Your task to perform on an android device: Go to battery settings Image 0: 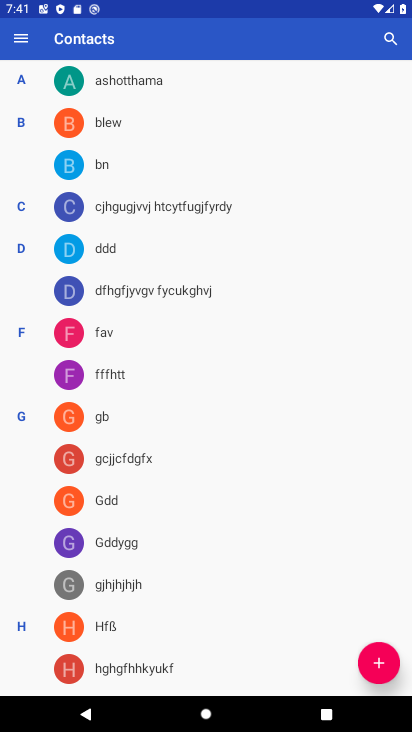
Step 0: press home button
Your task to perform on an android device: Go to battery settings Image 1: 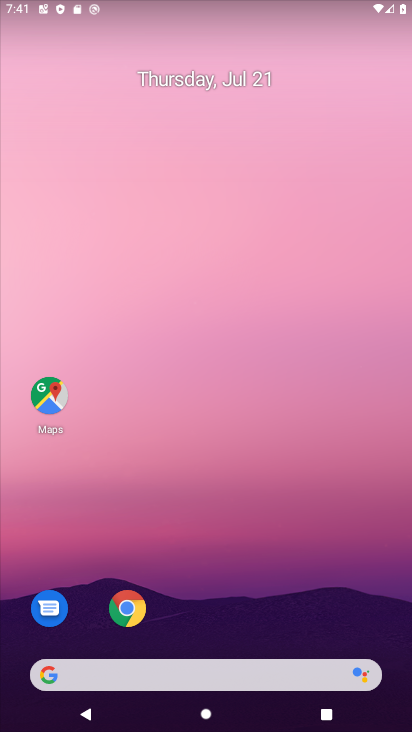
Step 1: drag from (191, 679) to (226, 262)
Your task to perform on an android device: Go to battery settings Image 2: 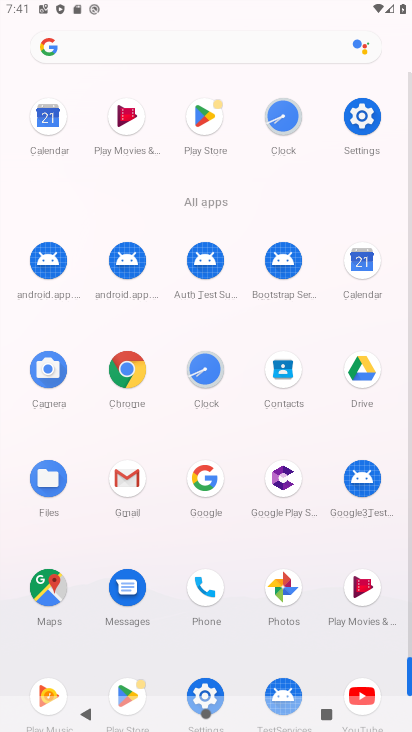
Step 2: click (362, 118)
Your task to perform on an android device: Go to battery settings Image 3: 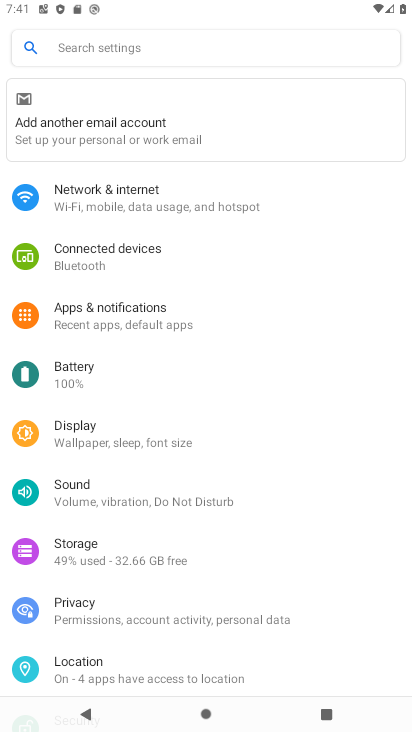
Step 3: click (79, 377)
Your task to perform on an android device: Go to battery settings Image 4: 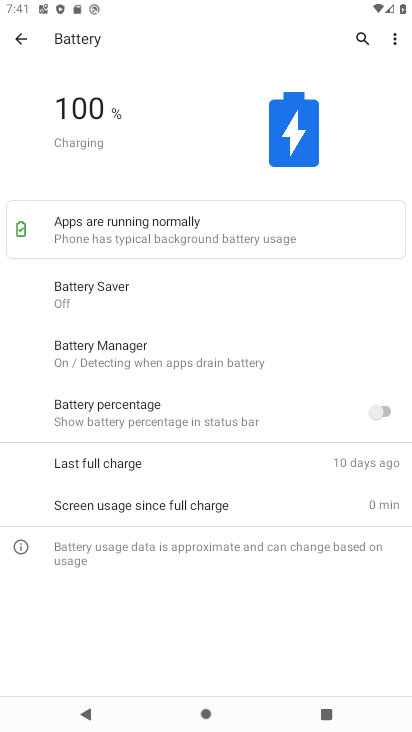
Step 4: task complete